Your task to perform on an android device: toggle improve location accuracy Image 0: 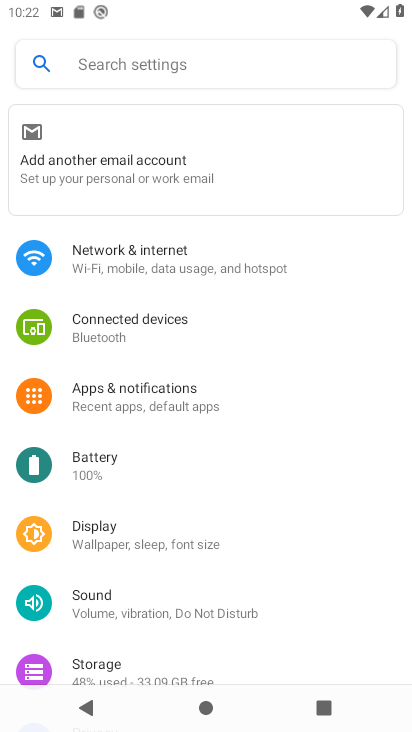
Step 0: press home button
Your task to perform on an android device: toggle improve location accuracy Image 1: 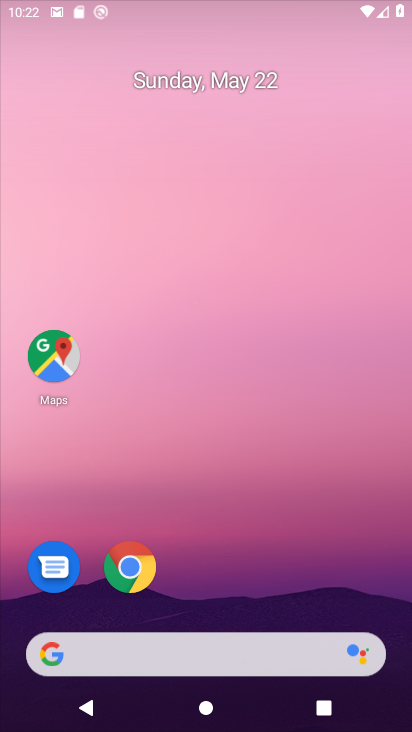
Step 1: drag from (349, 577) to (314, 96)
Your task to perform on an android device: toggle improve location accuracy Image 2: 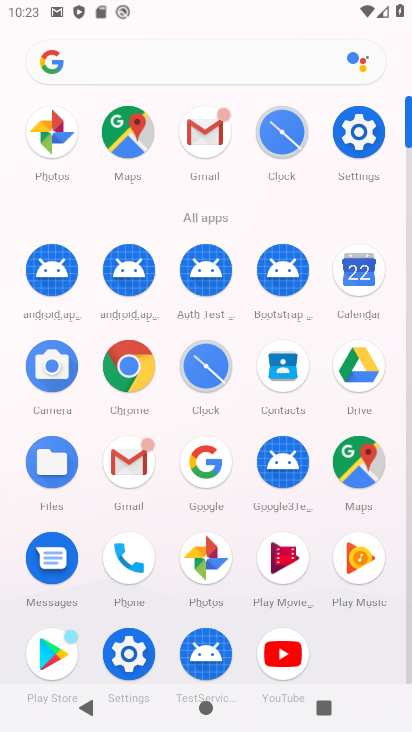
Step 2: click (355, 136)
Your task to perform on an android device: toggle improve location accuracy Image 3: 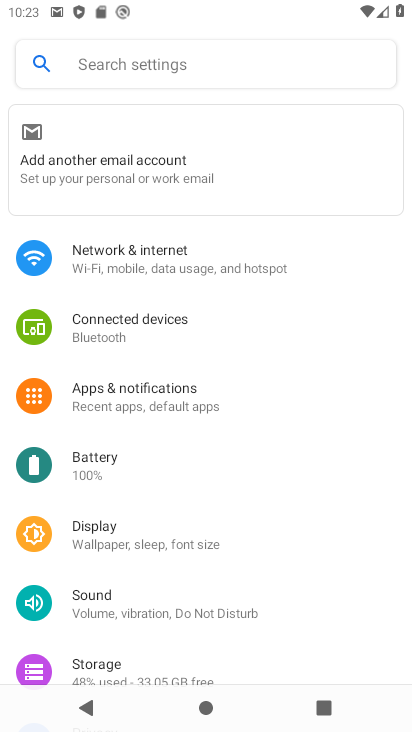
Step 3: drag from (197, 495) to (271, 232)
Your task to perform on an android device: toggle improve location accuracy Image 4: 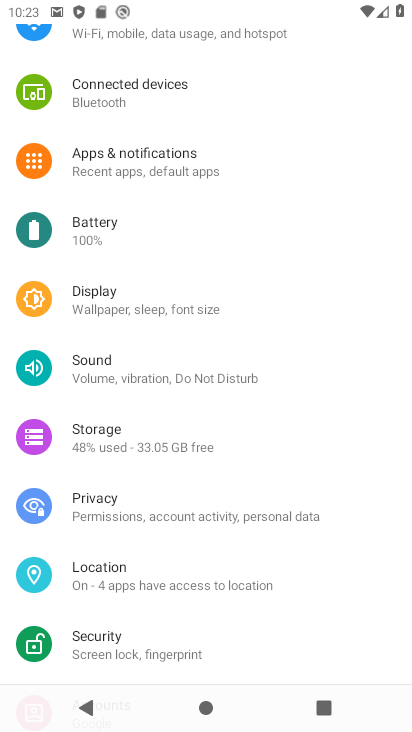
Step 4: click (208, 564)
Your task to perform on an android device: toggle improve location accuracy Image 5: 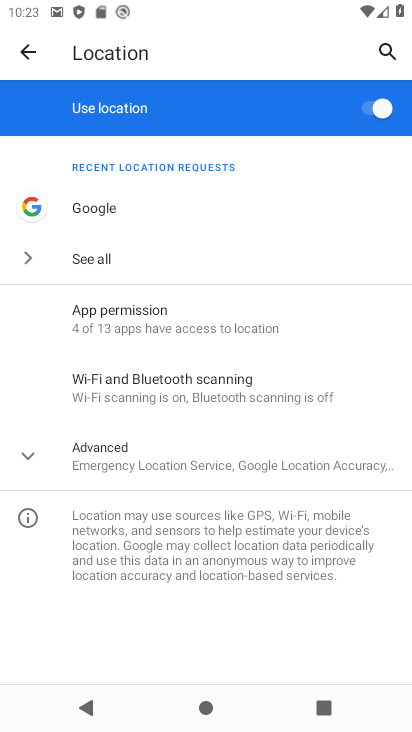
Step 5: click (177, 449)
Your task to perform on an android device: toggle improve location accuracy Image 6: 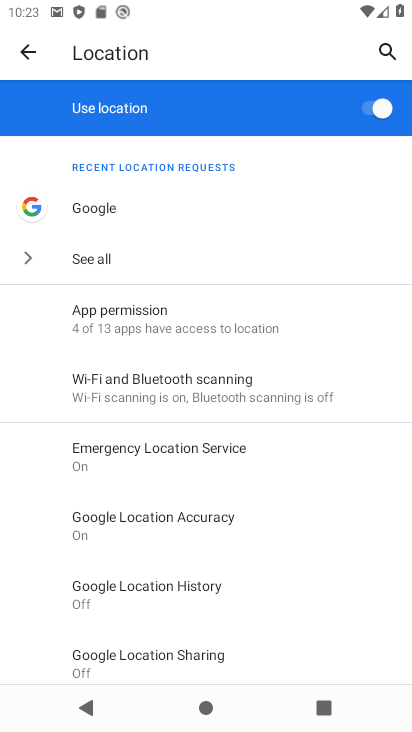
Step 6: click (170, 518)
Your task to perform on an android device: toggle improve location accuracy Image 7: 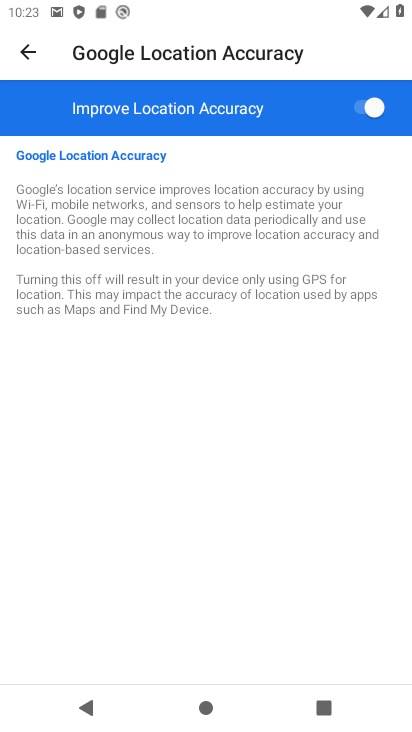
Step 7: click (362, 111)
Your task to perform on an android device: toggle improve location accuracy Image 8: 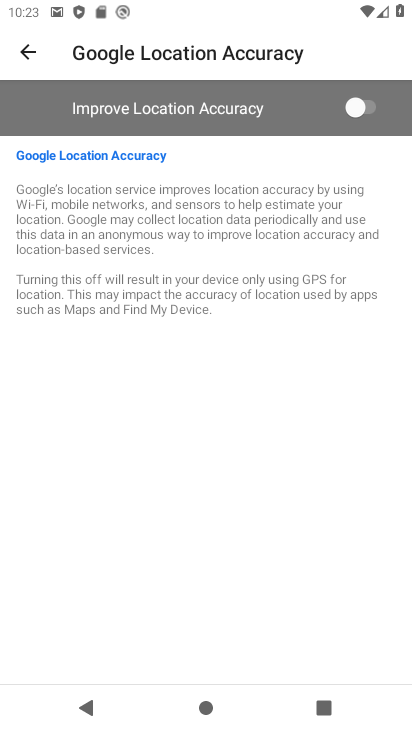
Step 8: task complete